Your task to perform on an android device: delete location history Image 0: 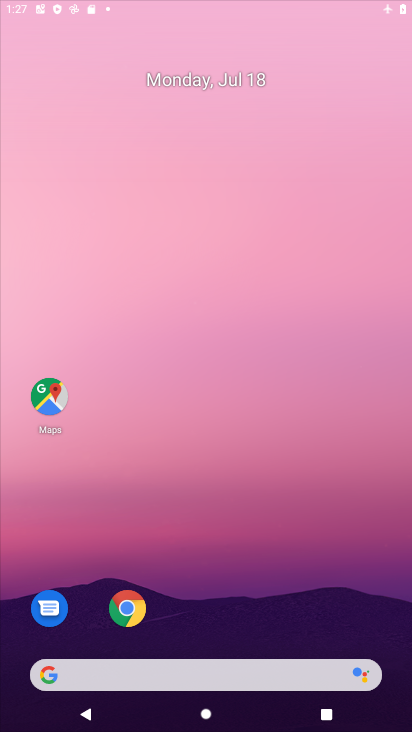
Step 0: drag from (287, 162) to (223, 20)
Your task to perform on an android device: delete location history Image 1: 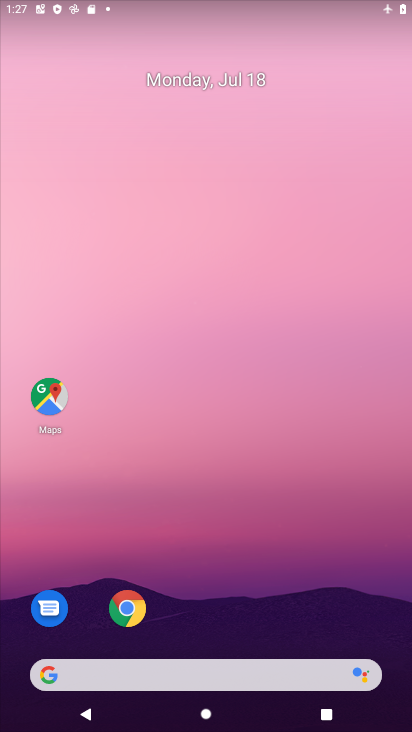
Step 1: drag from (387, 682) to (225, 3)
Your task to perform on an android device: delete location history Image 2: 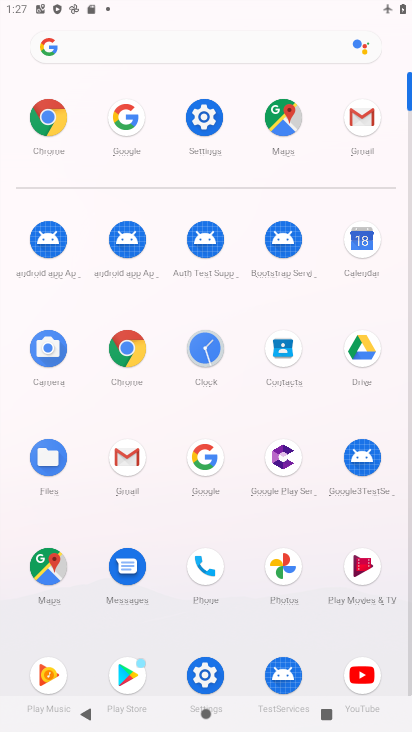
Step 2: click (204, 672)
Your task to perform on an android device: delete location history Image 3: 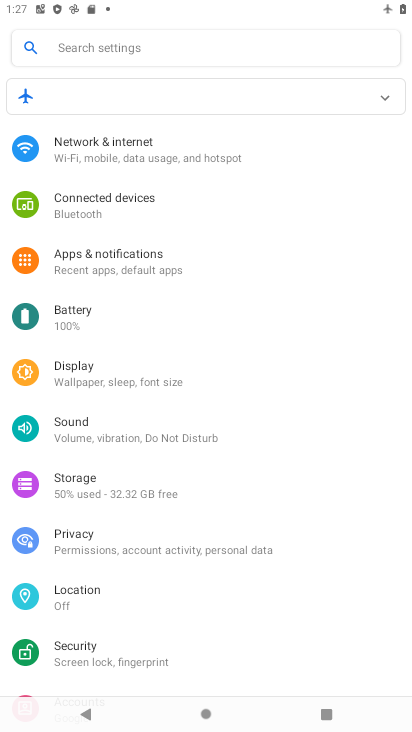
Step 3: click (106, 591)
Your task to perform on an android device: delete location history Image 4: 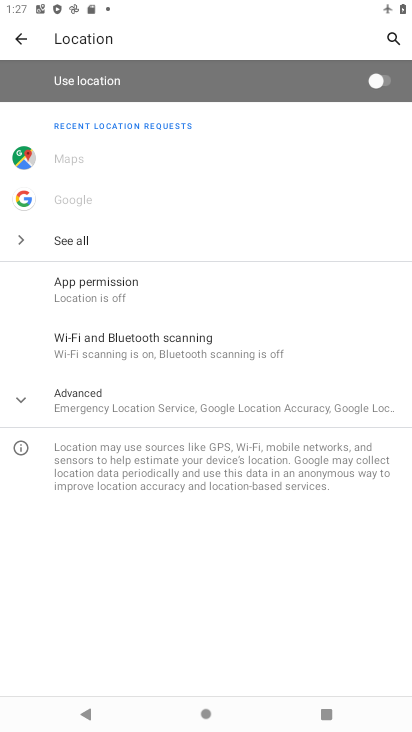
Step 4: click (107, 398)
Your task to perform on an android device: delete location history Image 5: 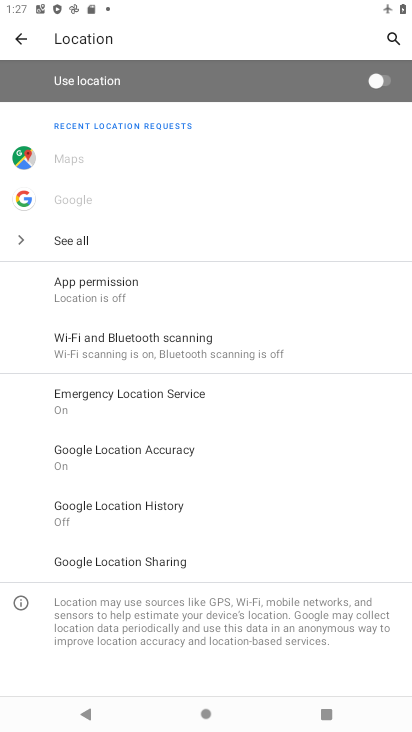
Step 5: click (157, 507)
Your task to perform on an android device: delete location history Image 6: 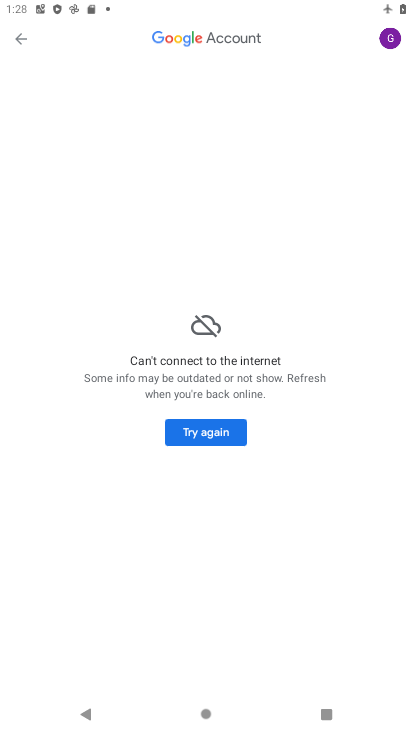
Step 6: task complete